Your task to perform on an android device: What's the weather going to be tomorrow? Image 0: 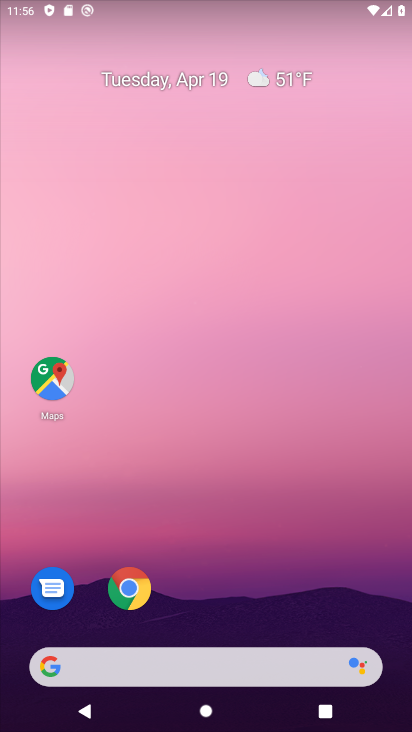
Step 0: click (260, 78)
Your task to perform on an android device: What's the weather going to be tomorrow? Image 1: 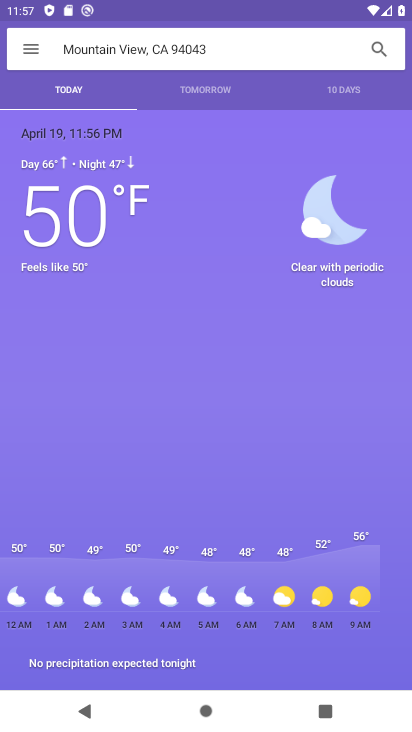
Step 1: click (204, 90)
Your task to perform on an android device: What's the weather going to be tomorrow? Image 2: 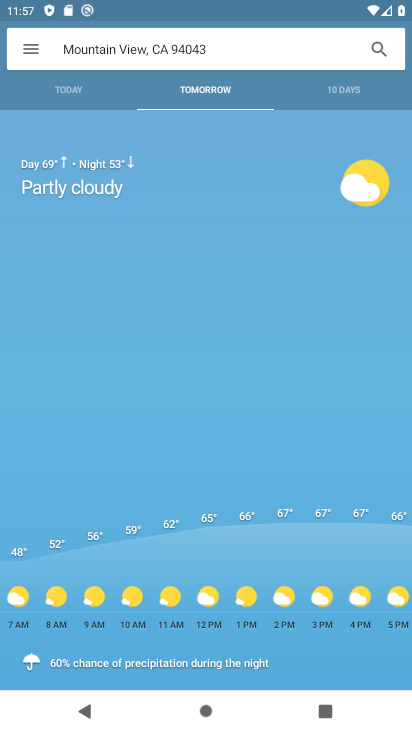
Step 2: task complete